Your task to perform on an android device: Go to Reddit.com Image 0: 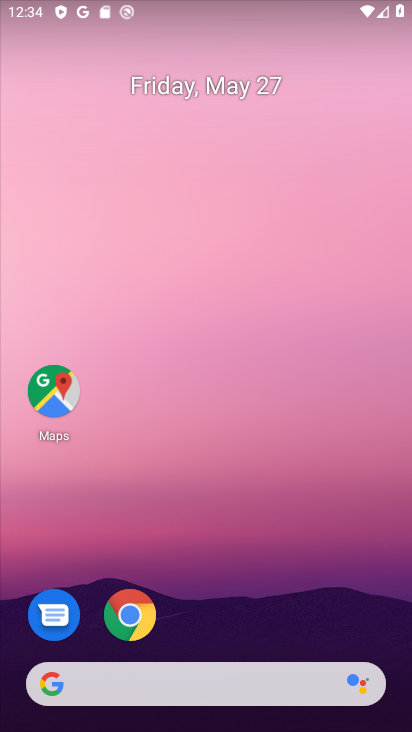
Step 0: click (139, 684)
Your task to perform on an android device: Go to Reddit.com Image 1: 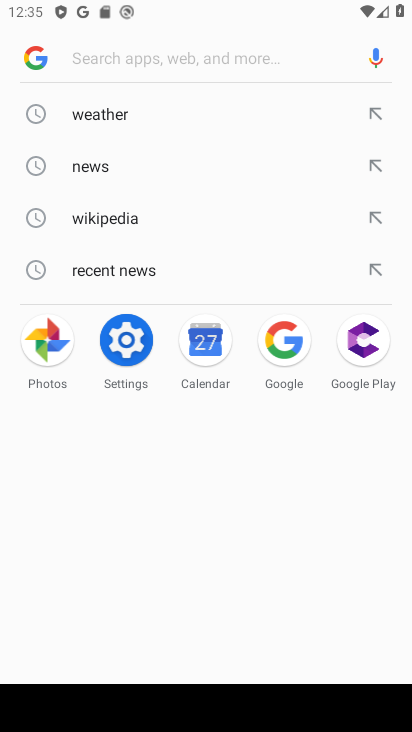
Step 1: type "Reddit.com"
Your task to perform on an android device: Go to Reddit.com Image 2: 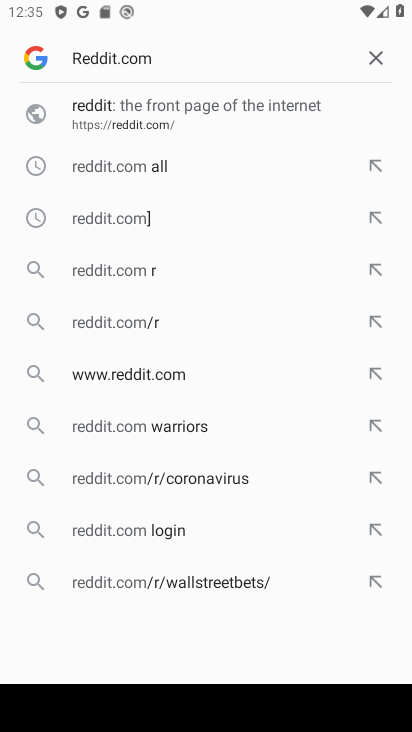
Step 2: click (139, 119)
Your task to perform on an android device: Go to Reddit.com Image 3: 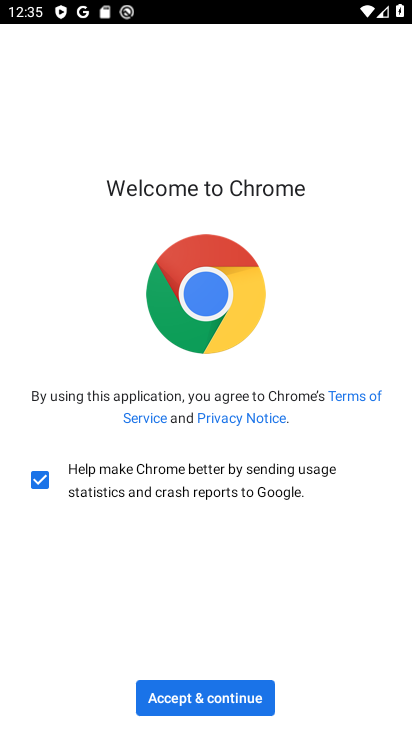
Step 3: click (156, 682)
Your task to perform on an android device: Go to Reddit.com Image 4: 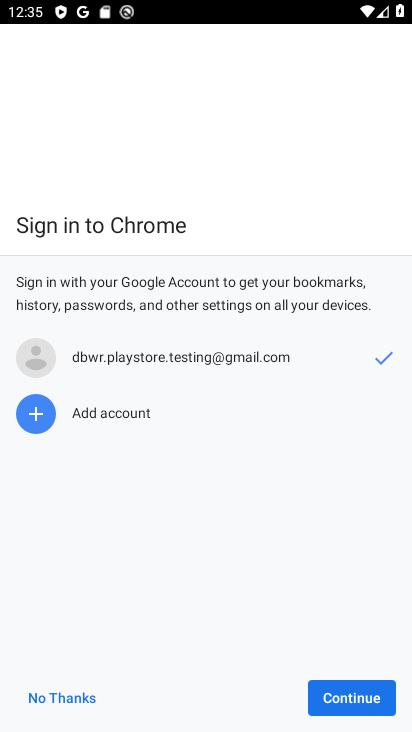
Step 4: click (390, 699)
Your task to perform on an android device: Go to Reddit.com Image 5: 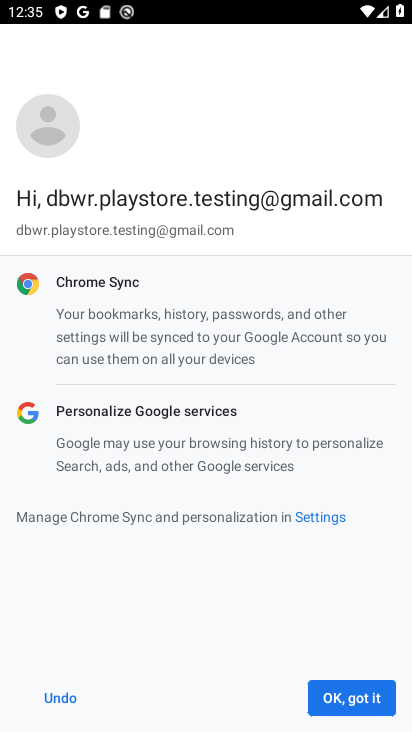
Step 5: click (385, 705)
Your task to perform on an android device: Go to Reddit.com Image 6: 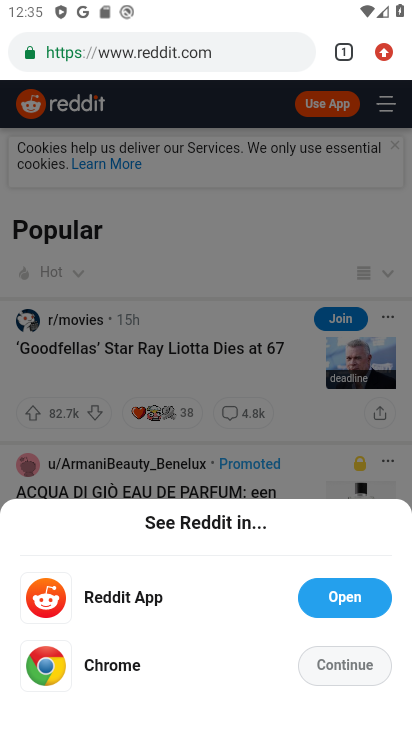
Step 6: click (354, 661)
Your task to perform on an android device: Go to Reddit.com Image 7: 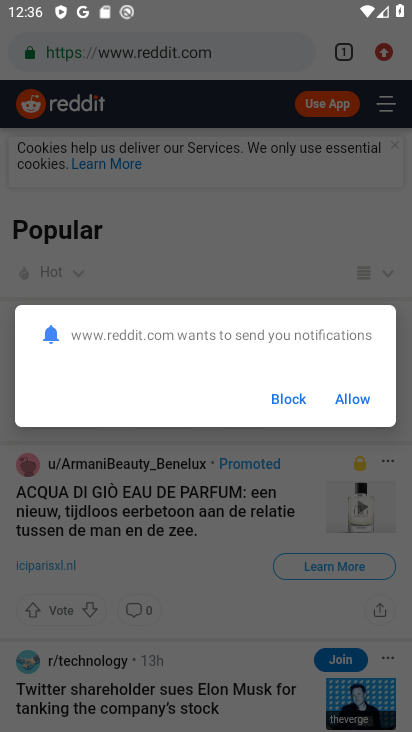
Step 7: click (356, 401)
Your task to perform on an android device: Go to Reddit.com Image 8: 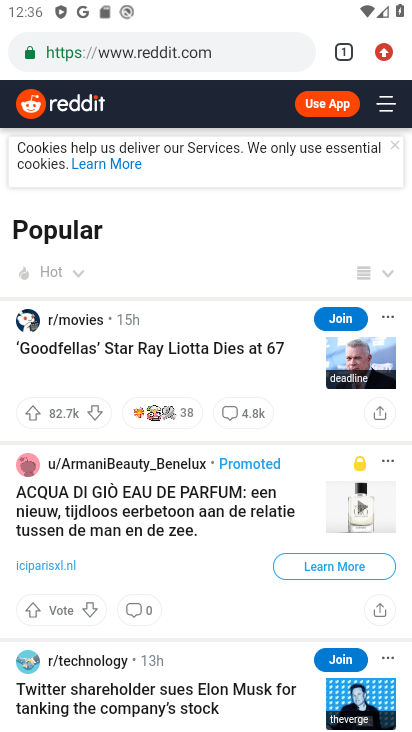
Step 8: task complete